Your task to perform on an android device: Go to Maps Image 0: 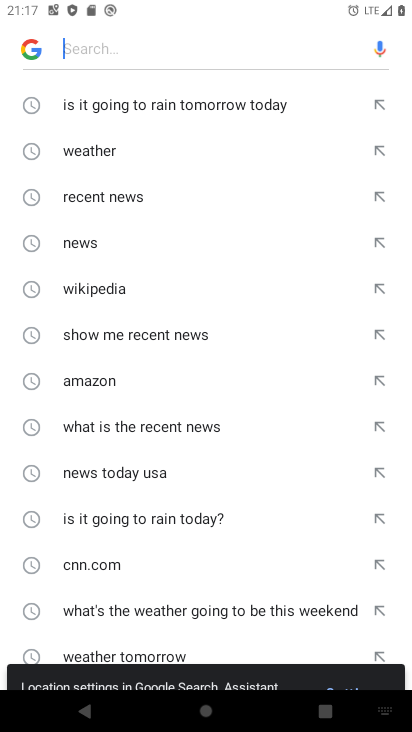
Step 0: press home button
Your task to perform on an android device: Go to Maps Image 1: 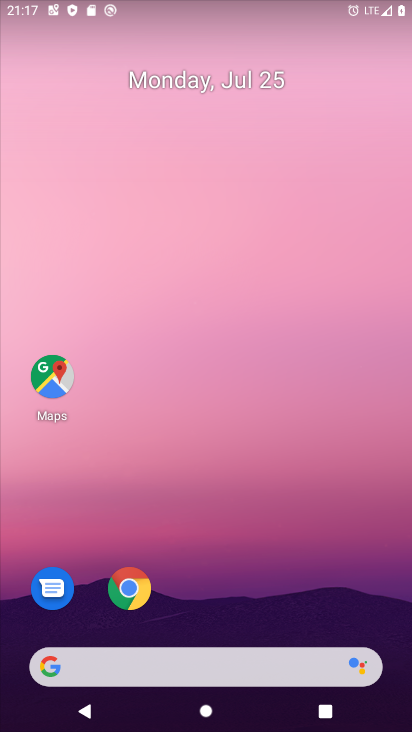
Step 1: click (51, 379)
Your task to perform on an android device: Go to Maps Image 2: 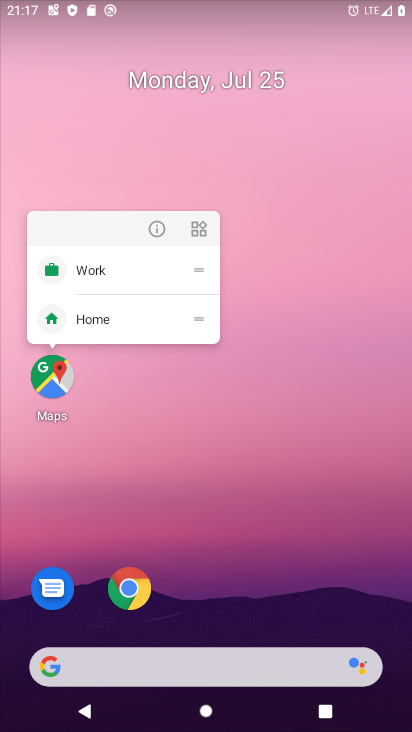
Step 2: click (54, 382)
Your task to perform on an android device: Go to Maps Image 3: 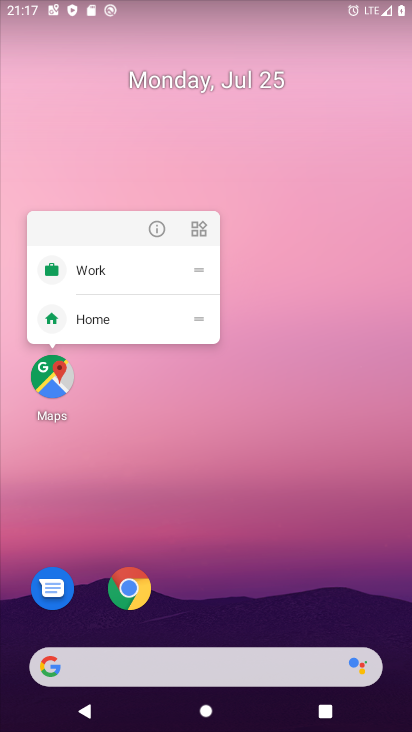
Step 3: click (54, 381)
Your task to perform on an android device: Go to Maps Image 4: 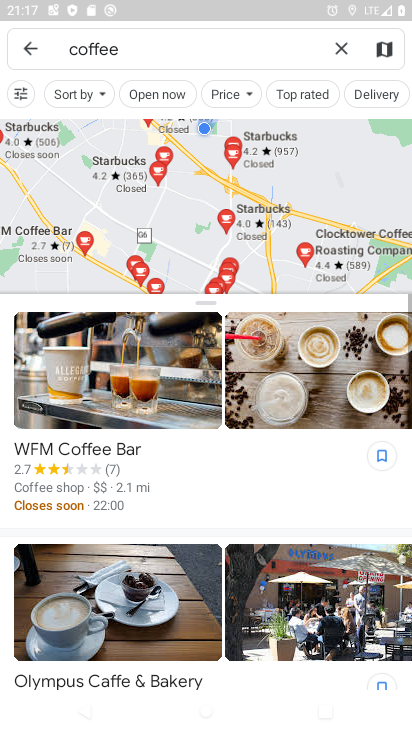
Step 4: click (341, 45)
Your task to perform on an android device: Go to Maps Image 5: 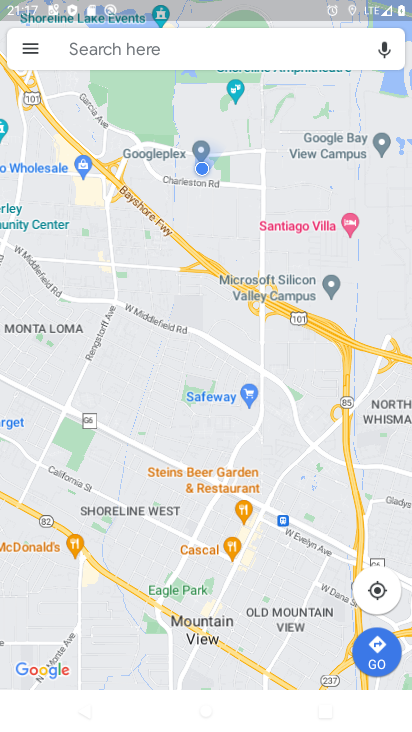
Step 5: task complete